Your task to perform on an android device: Open accessibility settings Image 0: 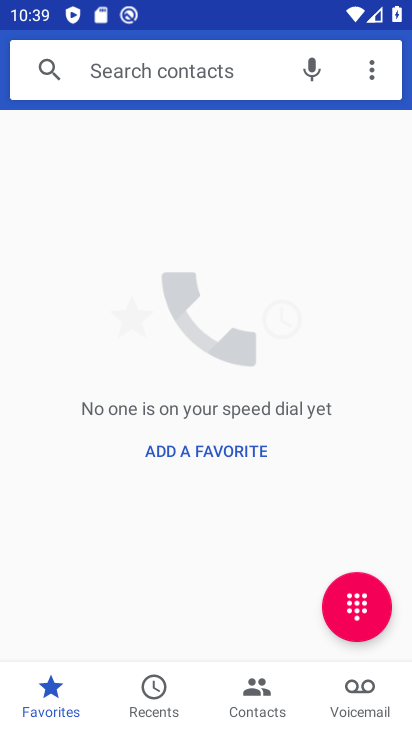
Step 0: press home button
Your task to perform on an android device: Open accessibility settings Image 1: 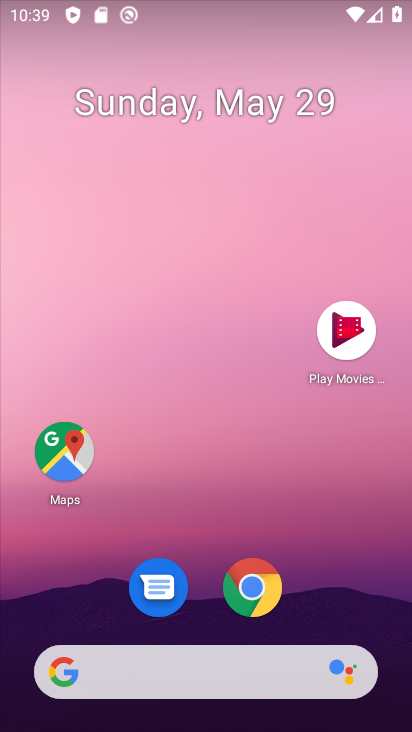
Step 1: drag from (317, 623) to (179, 201)
Your task to perform on an android device: Open accessibility settings Image 2: 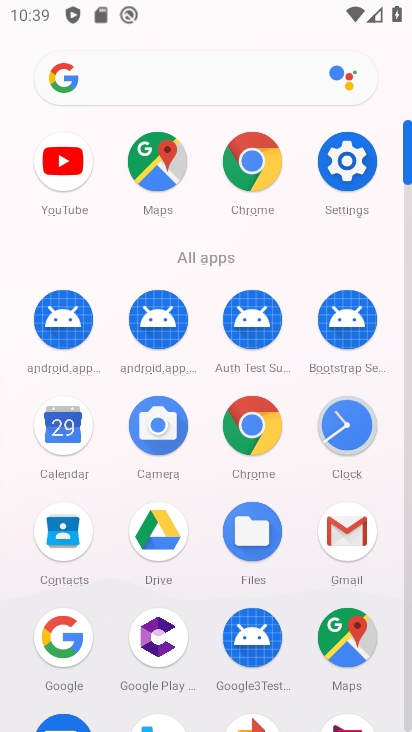
Step 2: click (351, 156)
Your task to perform on an android device: Open accessibility settings Image 3: 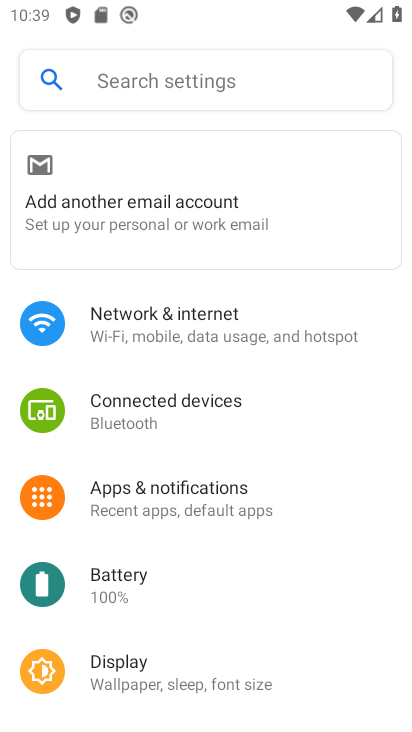
Step 3: drag from (257, 619) to (179, 279)
Your task to perform on an android device: Open accessibility settings Image 4: 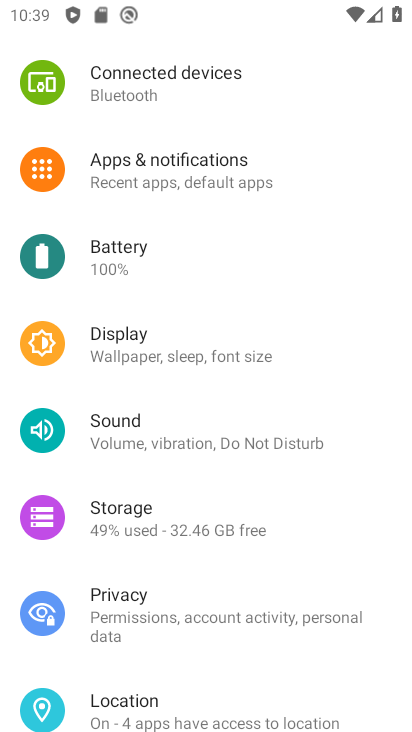
Step 4: drag from (194, 578) to (116, 95)
Your task to perform on an android device: Open accessibility settings Image 5: 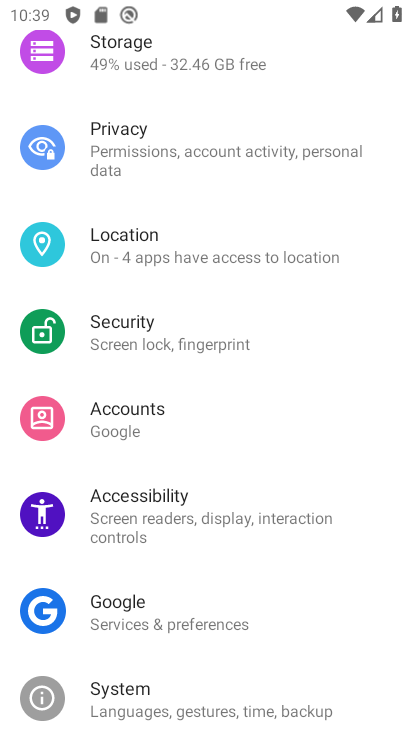
Step 5: click (206, 492)
Your task to perform on an android device: Open accessibility settings Image 6: 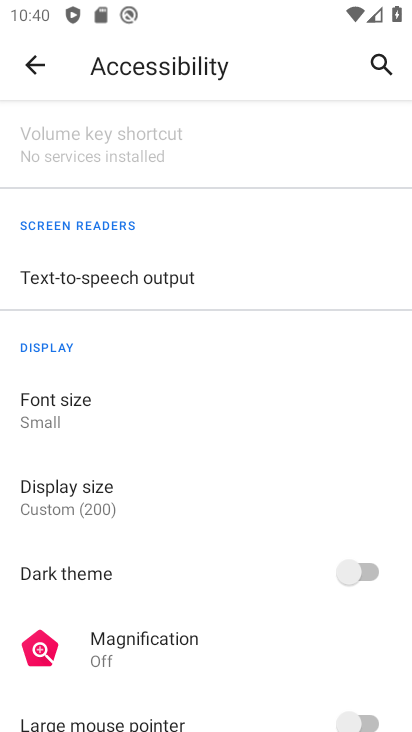
Step 6: task complete